Your task to perform on an android device: What's the latest news in astrophysics? Image 0: 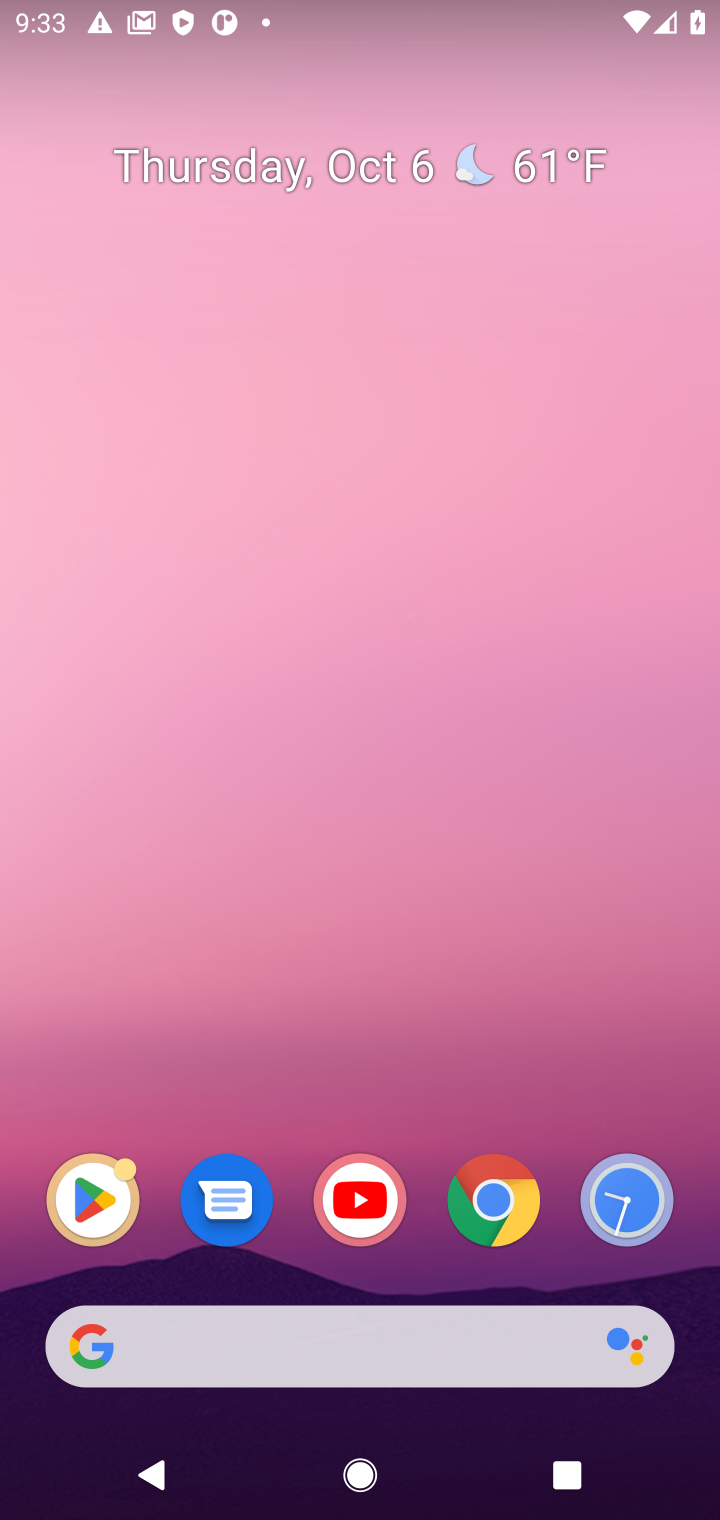
Step 0: drag from (270, 933) to (224, 459)
Your task to perform on an android device: What's the latest news in astrophysics? Image 1: 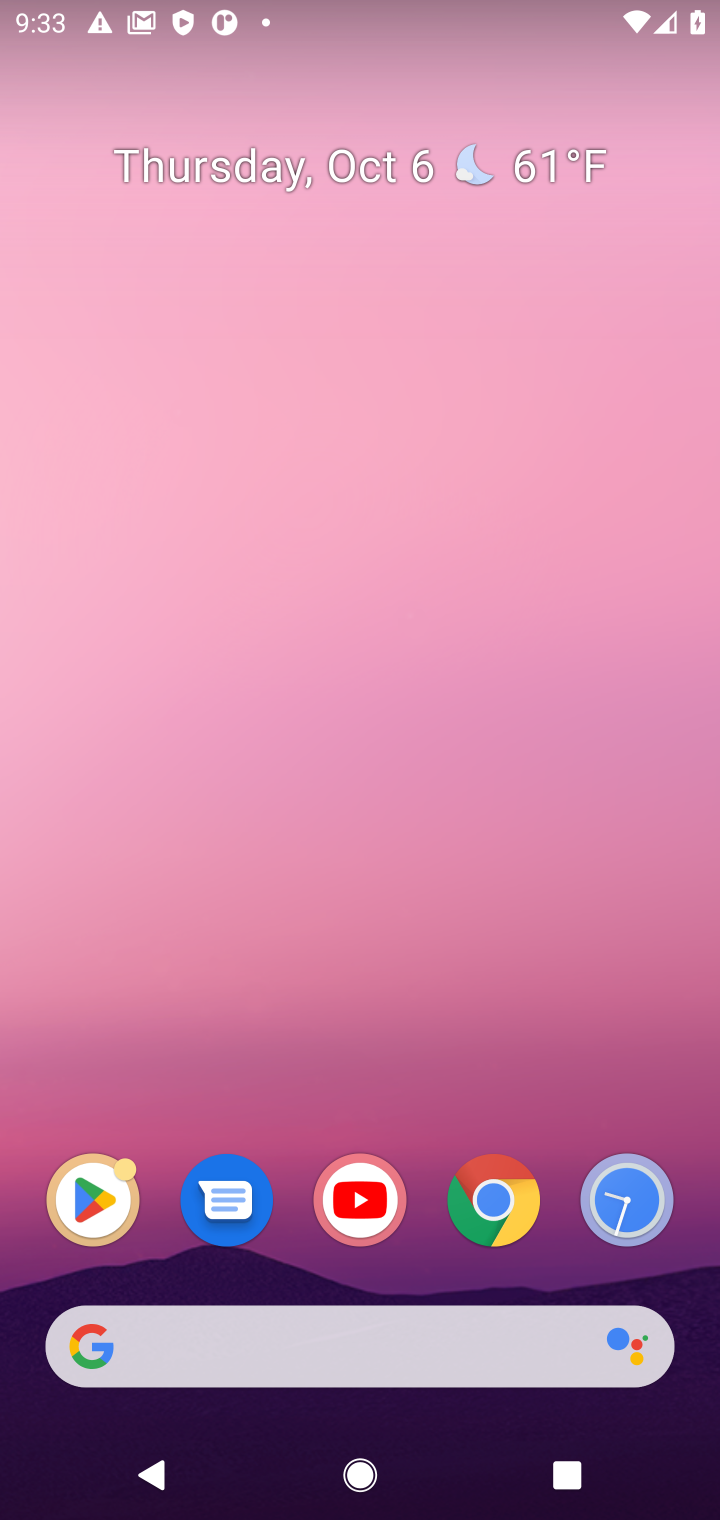
Step 1: drag from (293, 904) to (293, 340)
Your task to perform on an android device: What's the latest news in astrophysics? Image 2: 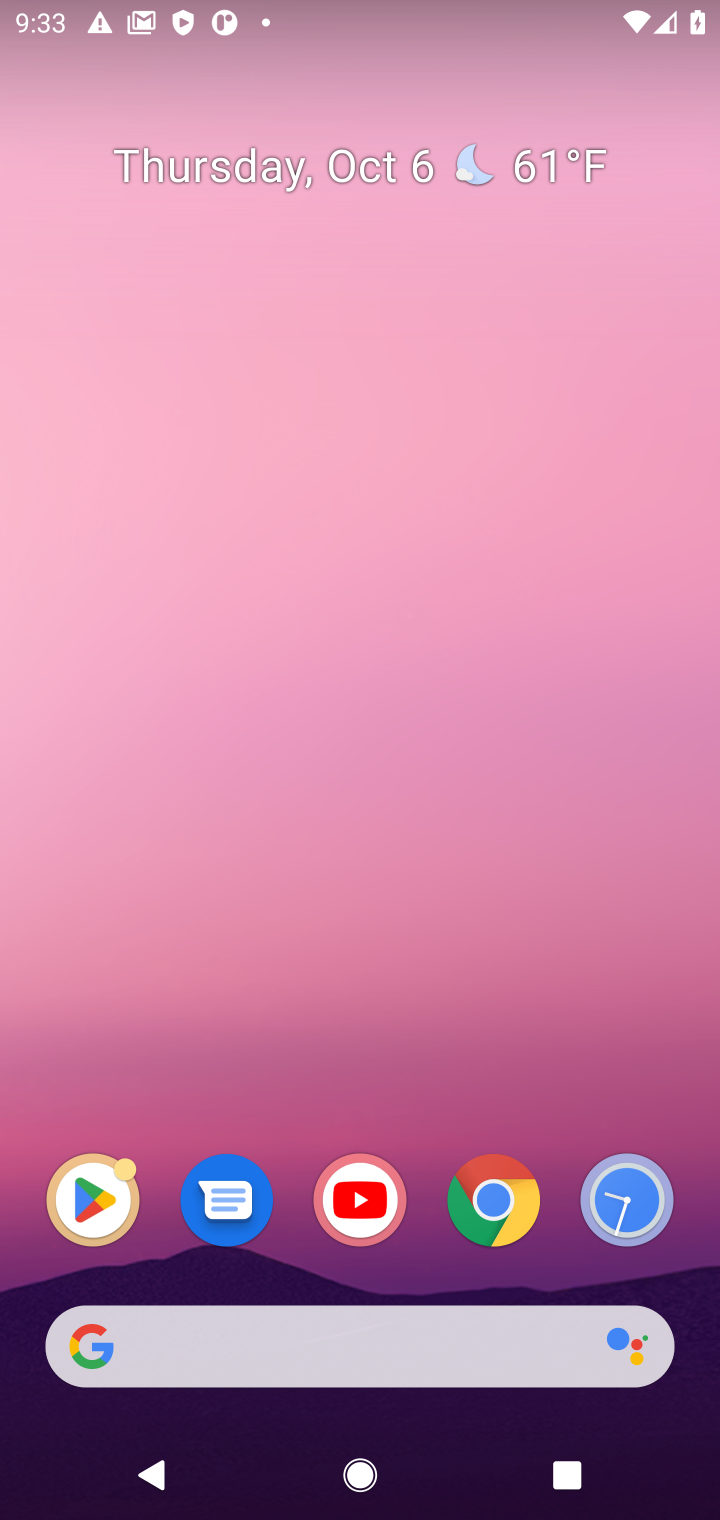
Step 2: drag from (317, 1306) to (375, 174)
Your task to perform on an android device: What's the latest news in astrophysics? Image 3: 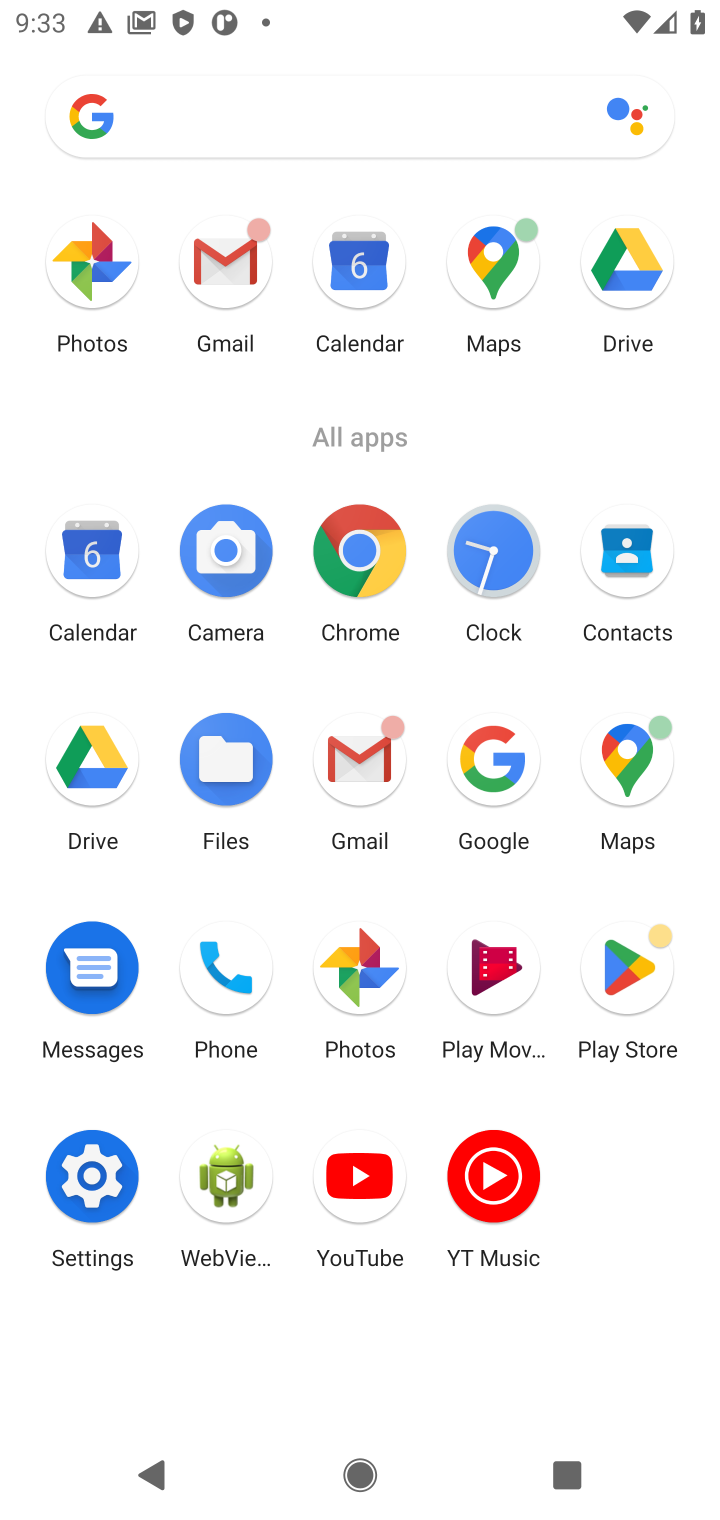
Step 3: click (480, 750)
Your task to perform on an android device: What's the latest news in astrophysics? Image 4: 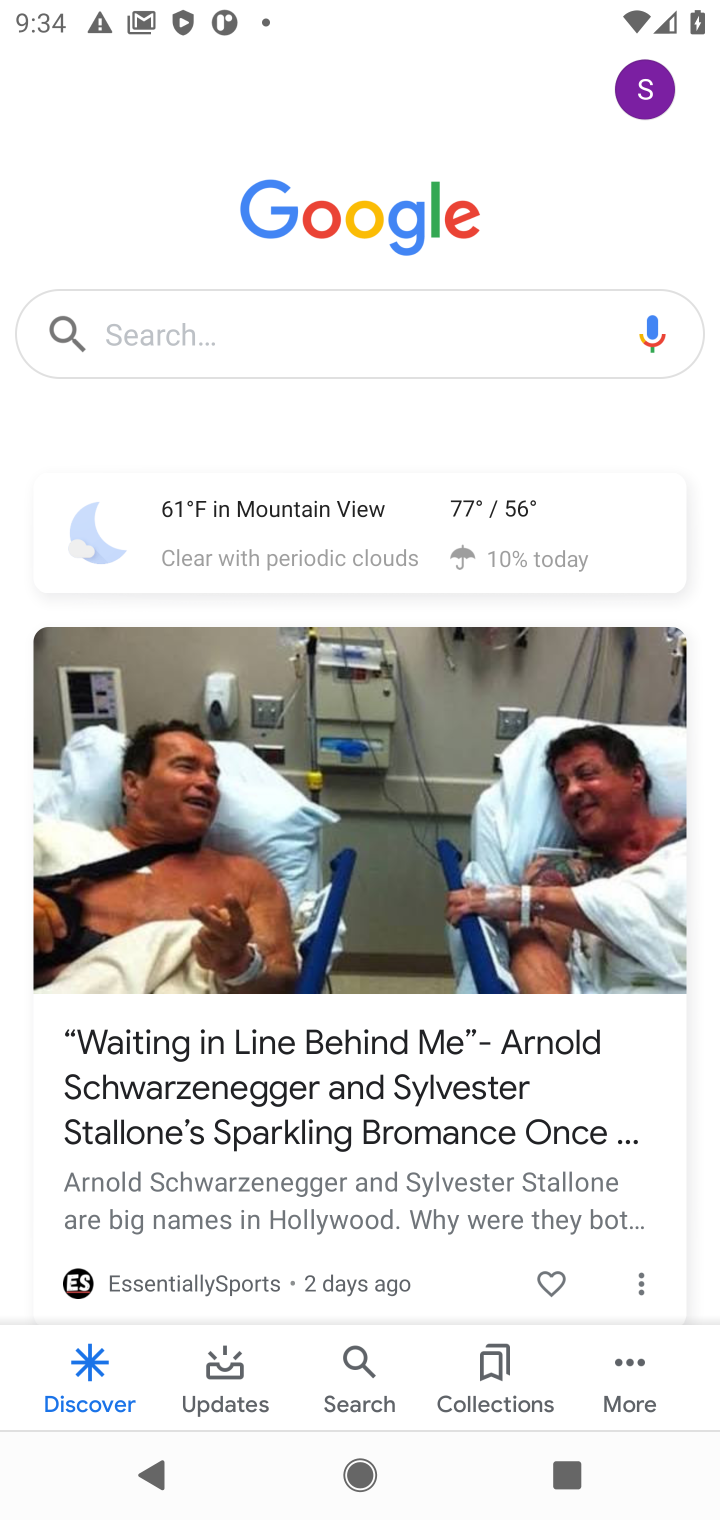
Step 4: click (146, 316)
Your task to perform on an android device: What's the latest news in astrophysics? Image 5: 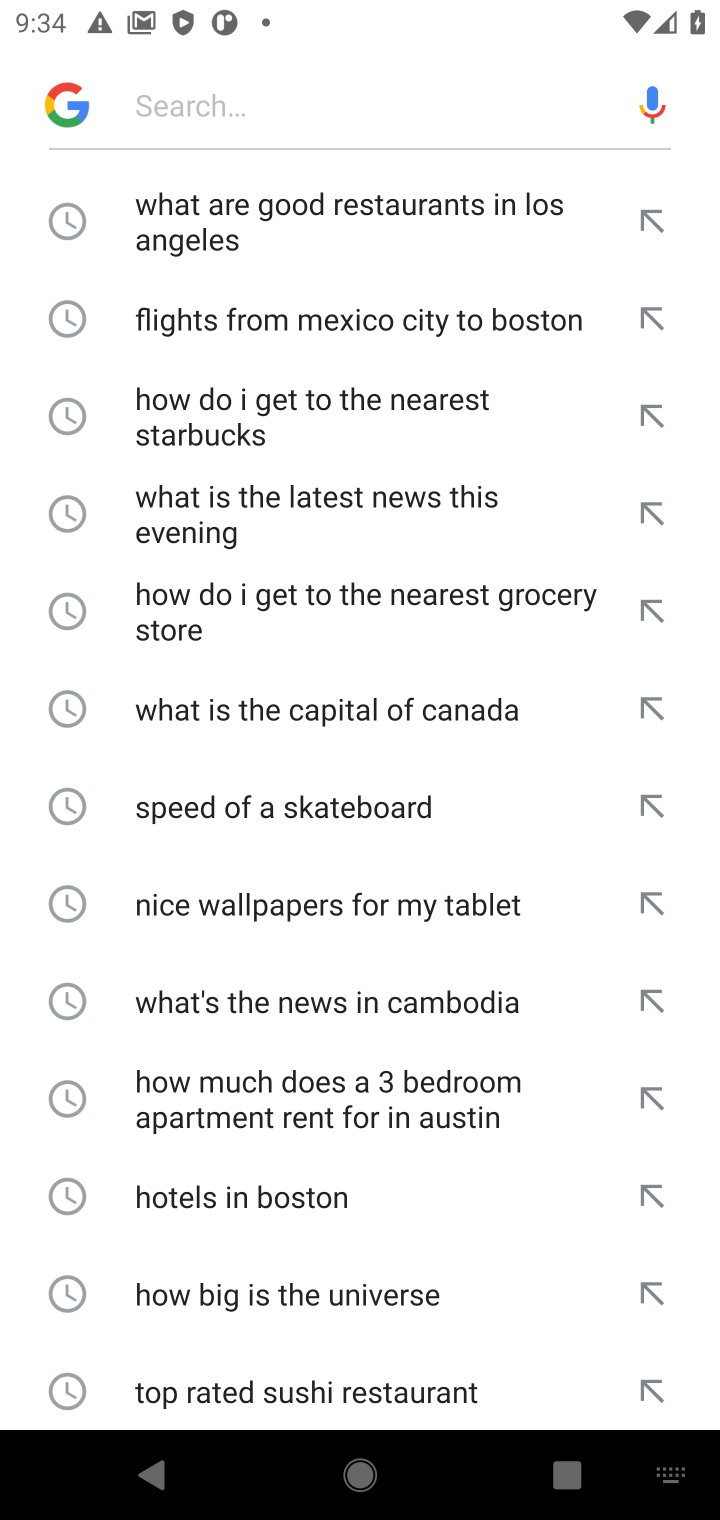
Step 5: type "What's the latest news in astrophysics?"
Your task to perform on an android device: What's the latest news in astrophysics? Image 6: 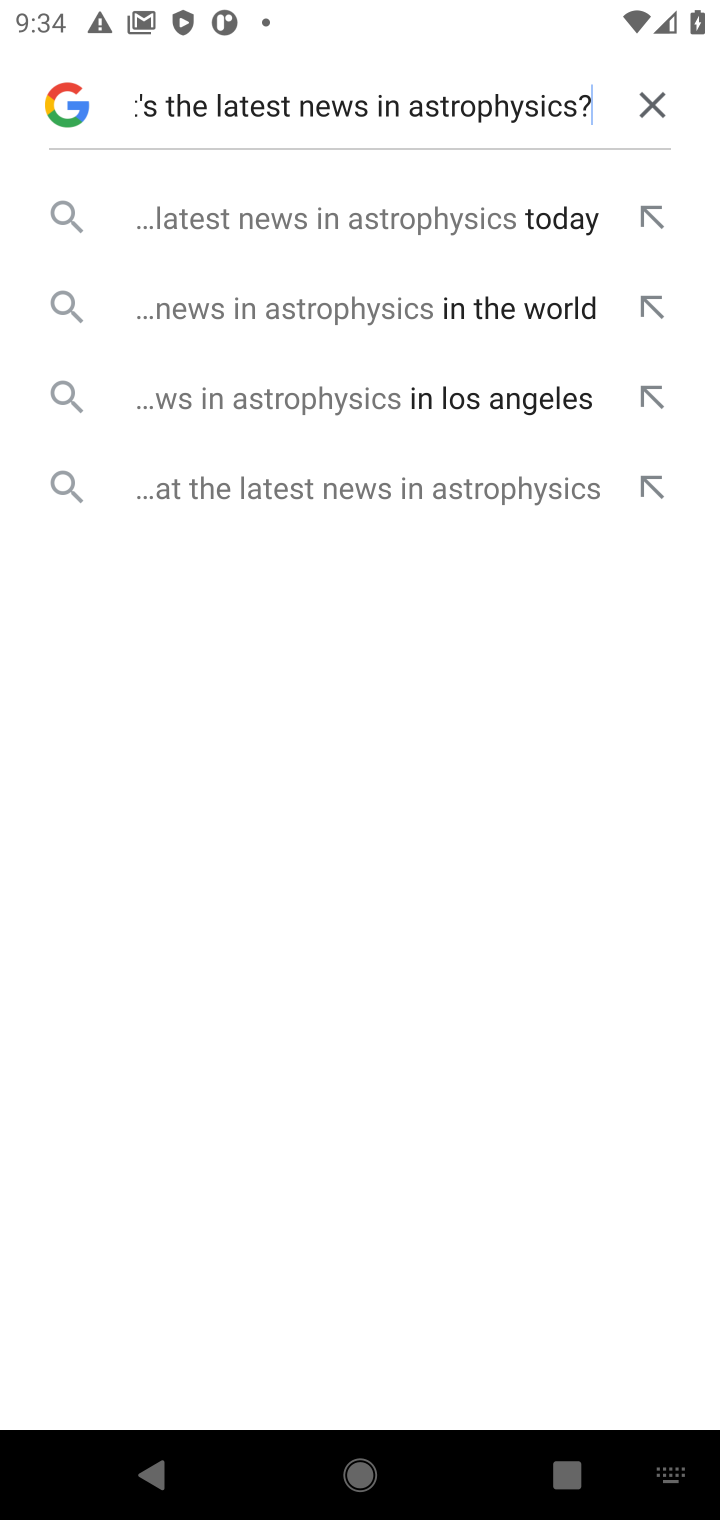
Step 6: click (333, 206)
Your task to perform on an android device: What's the latest news in astrophysics? Image 7: 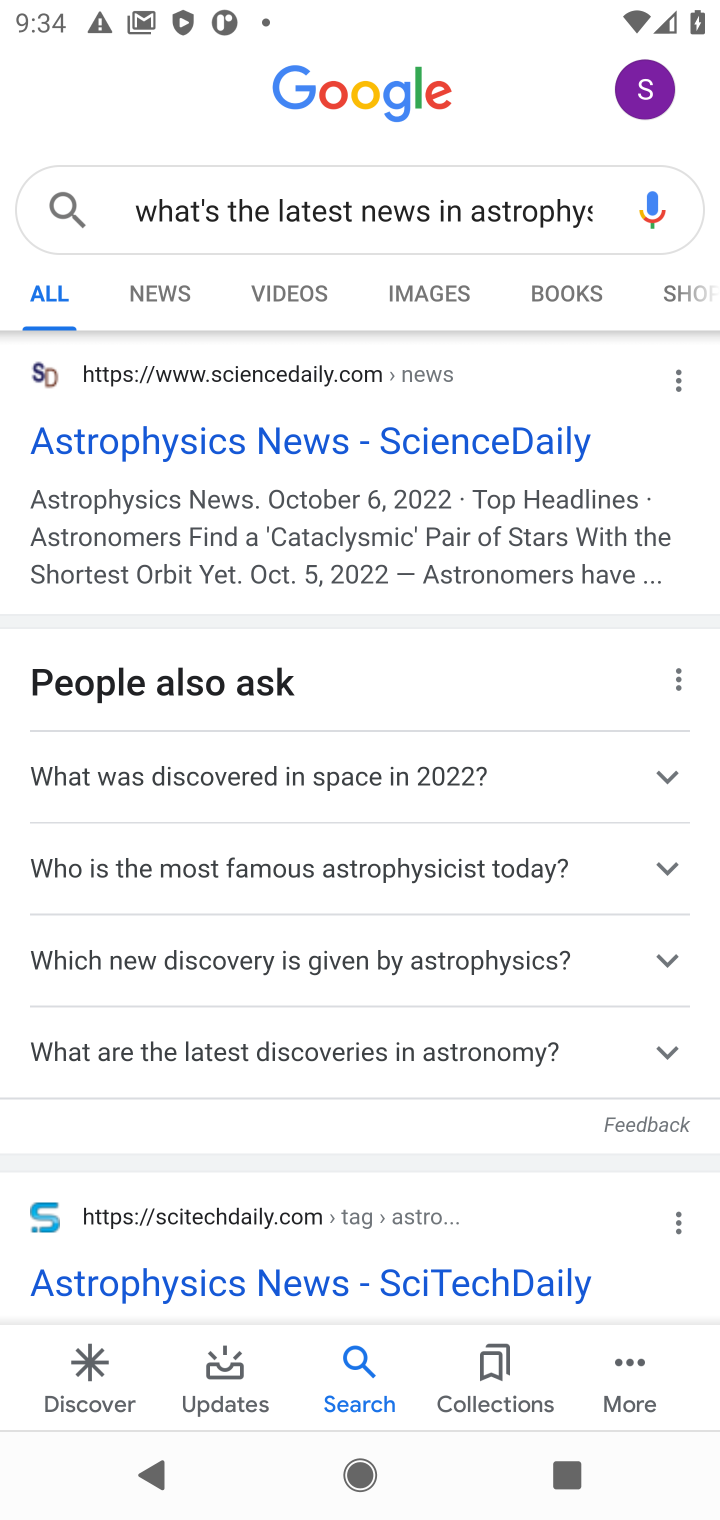
Step 7: click (240, 437)
Your task to perform on an android device: What's the latest news in astrophysics? Image 8: 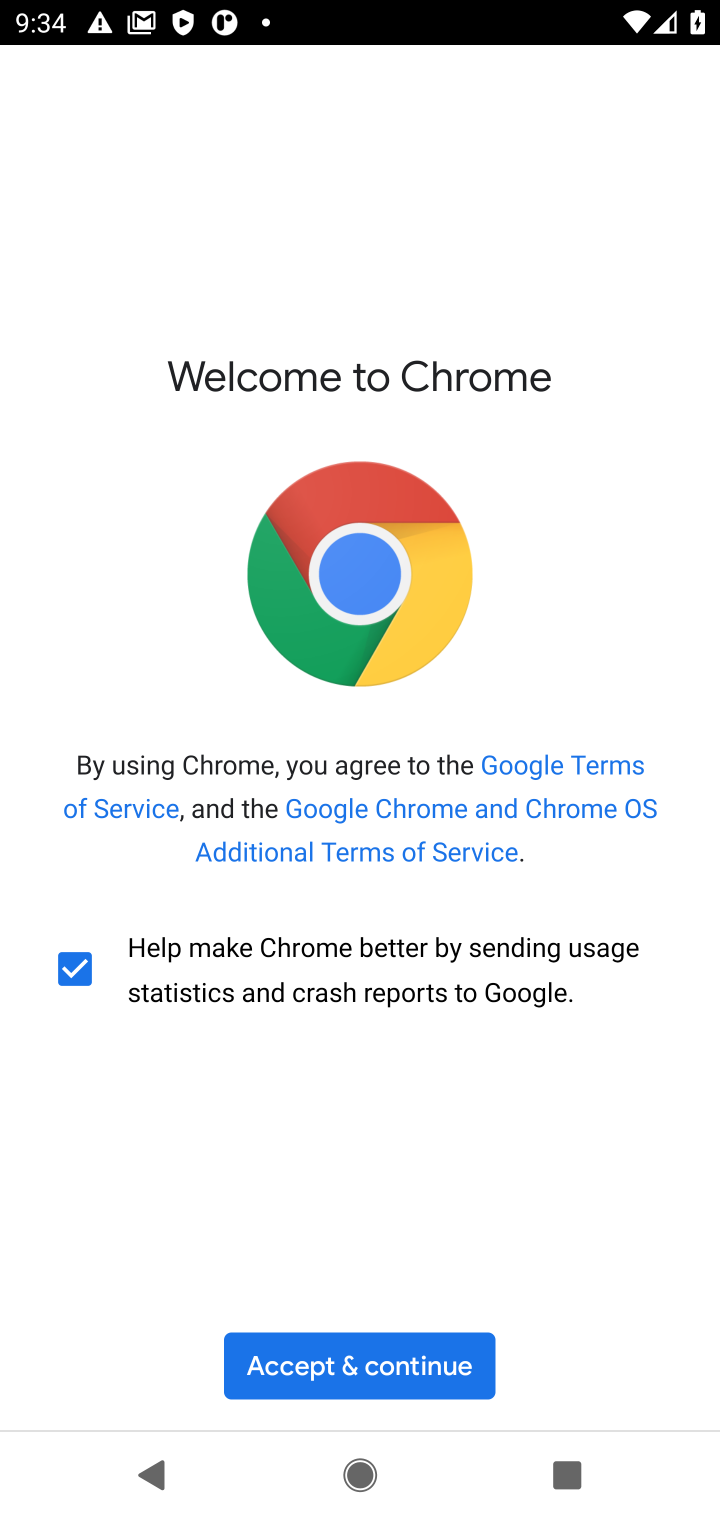
Step 8: click (271, 1356)
Your task to perform on an android device: What's the latest news in astrophysics? Image 9: 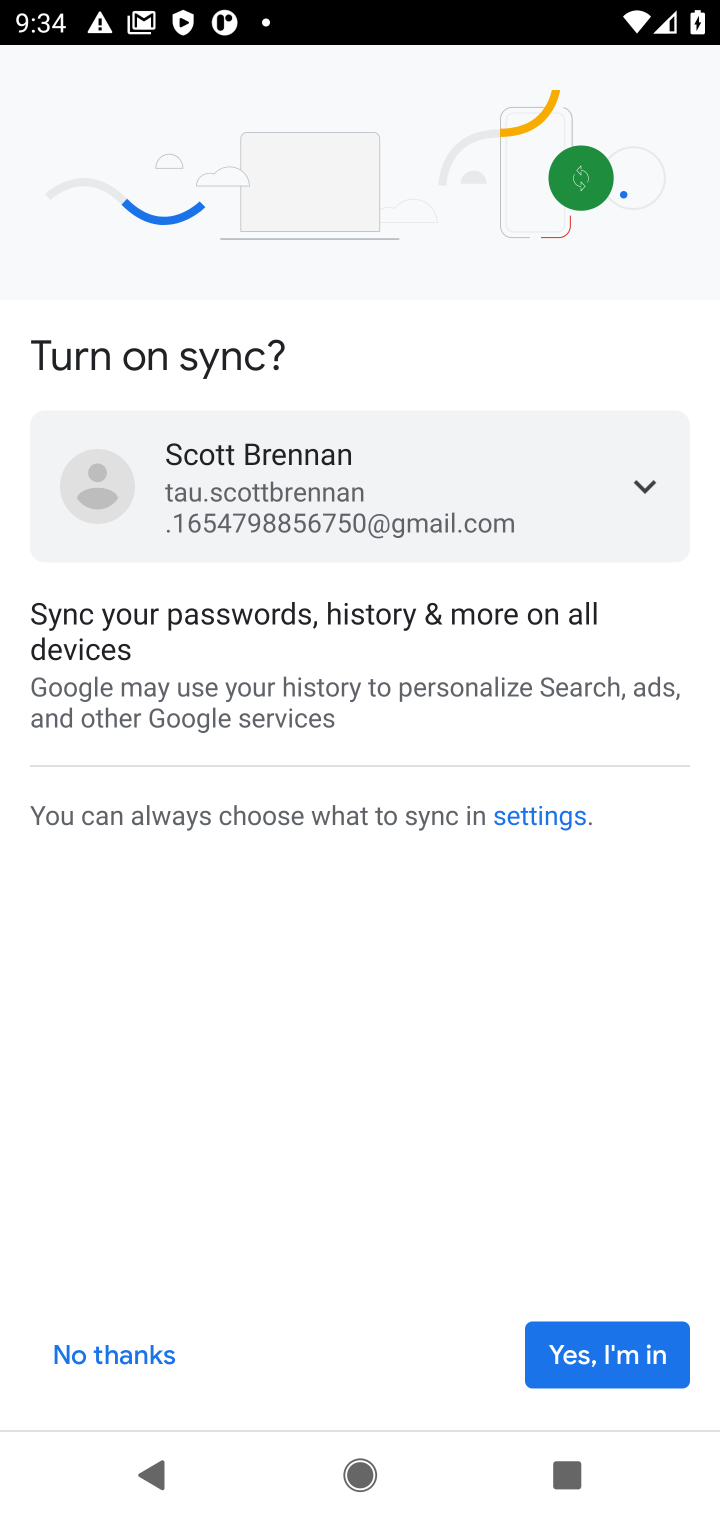
Step 9: click (584, 1358)
Your task to perform on an android device: What's the latest news in astrophysics? Image 10: 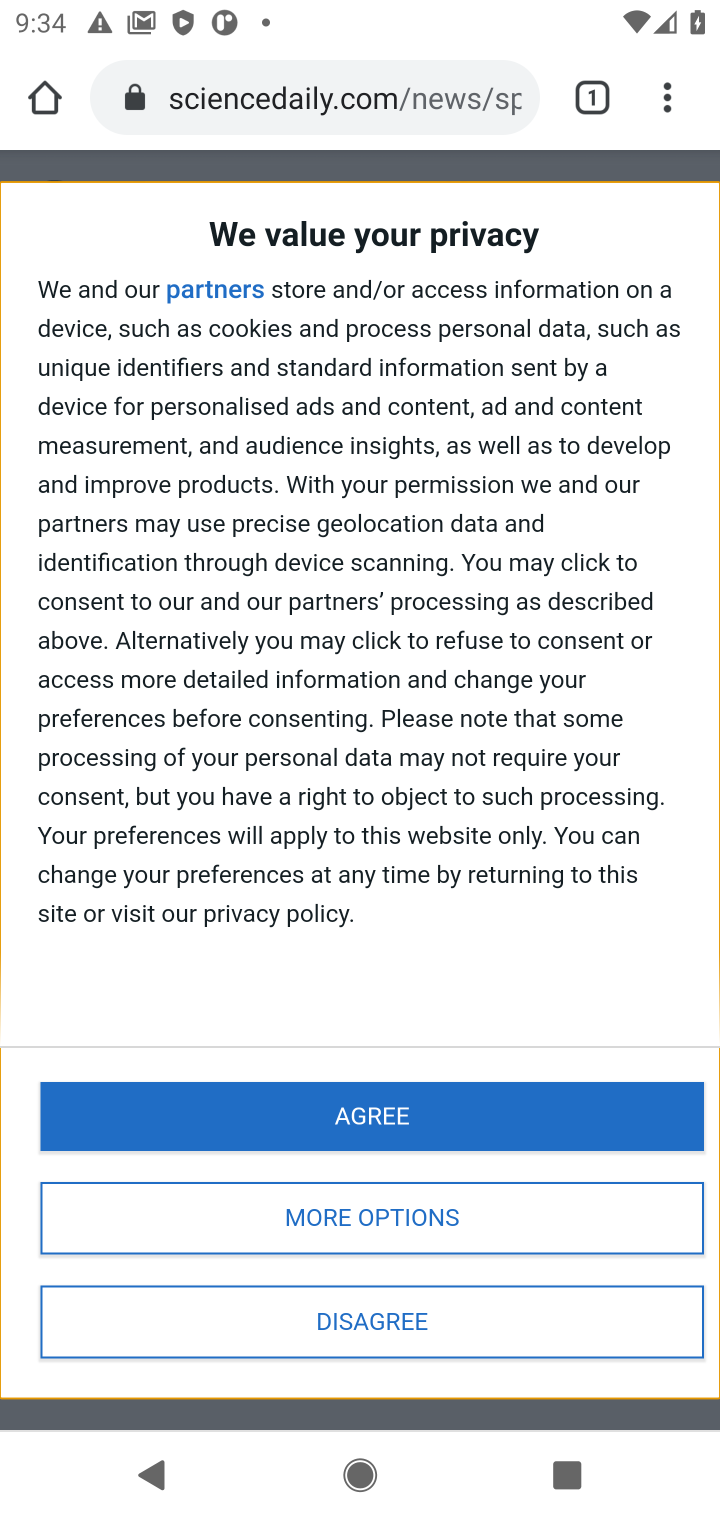
Step 10: task complete